Your task to perform on an android device: turn on sleep mode Image 0: 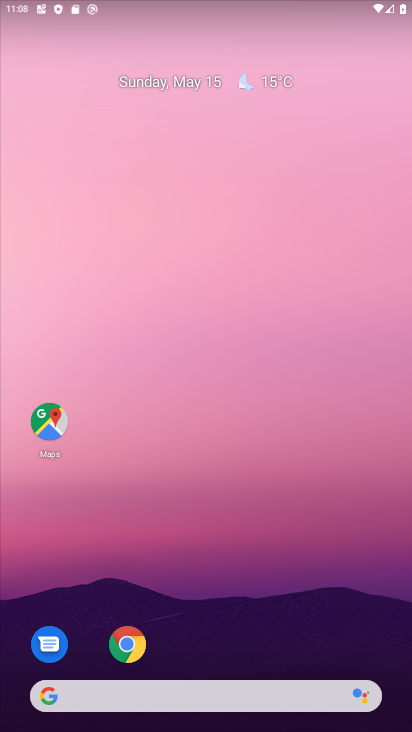
Step 0: drag from (316, 12) to (280, 497)
Your task to perform on an android device: turn on sleep mode Image 1: 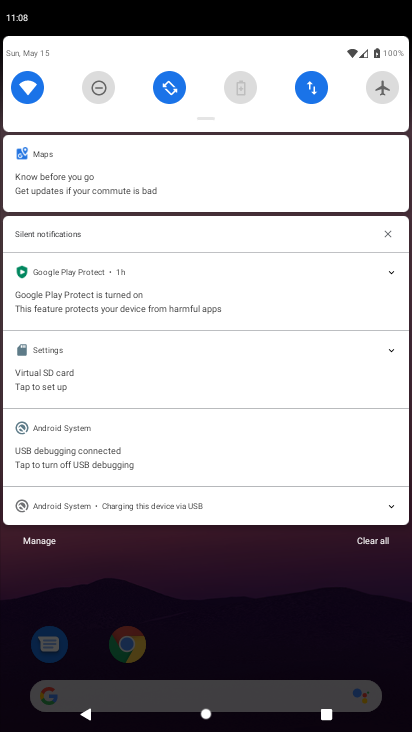
Step 1: drag from (203, 117) to (168, 443)
Your task to perform on an android device: turn on sleep mode Image 2: 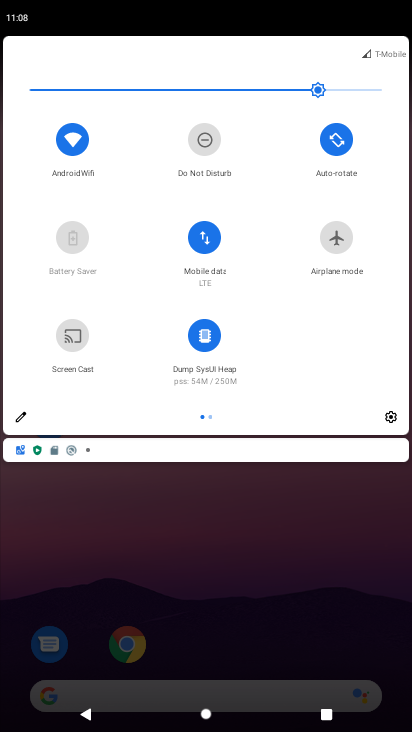
Step 2: click (17, 419)
Your task to perform on an android device: turn on sleep mode Image 3: 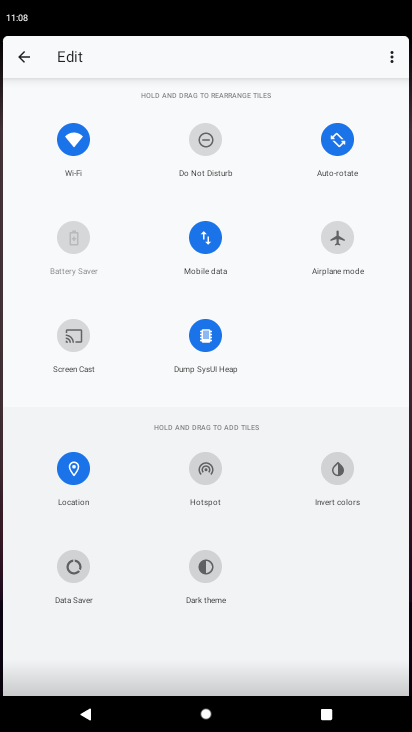
Step 3: task complete